Your task to perform on an android device: Open Chrome and go to settings Image 0: 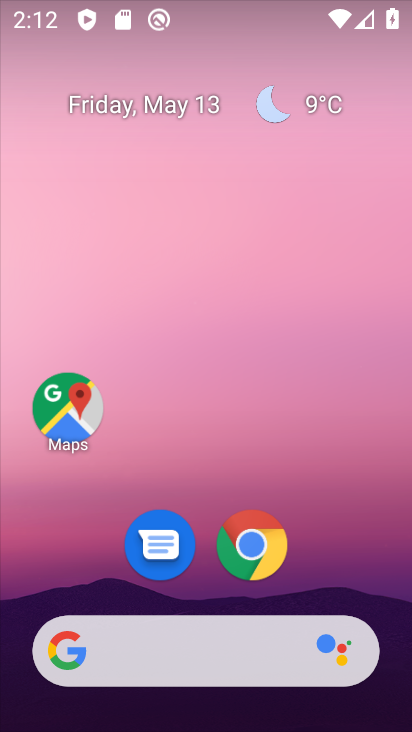
Step 0: click (265, 546)
Your task to perform on an android device: Open Chrome and go to settings Image 1: 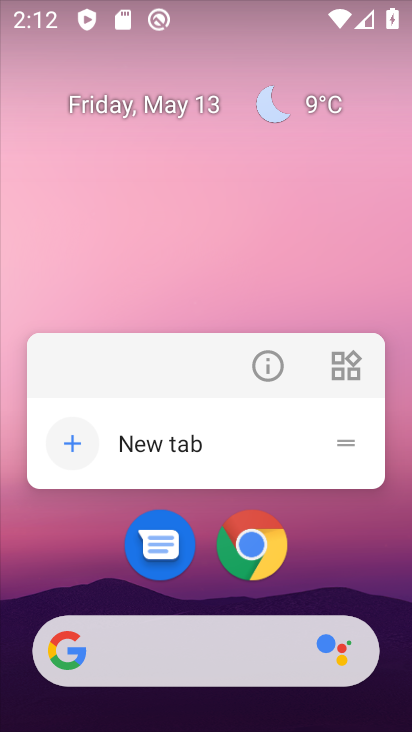
Step 1: click (254, 528)
Your task to perform on an android device: Open Chrome and go to settings Image 2: 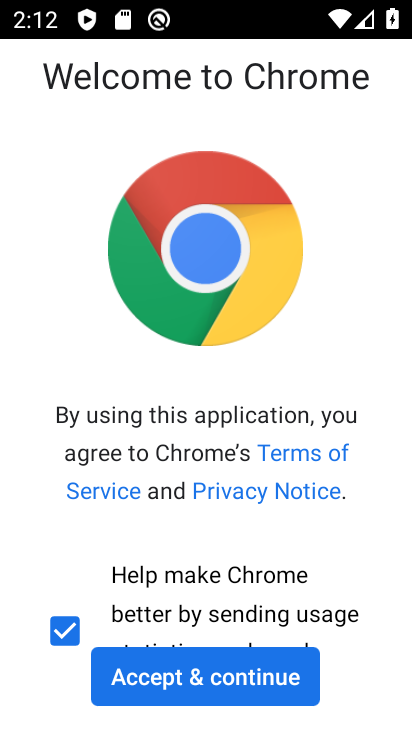
Step 2: click (197, 674)
Your task to perform on an android device: Open Chrome and go to settings Image 3: 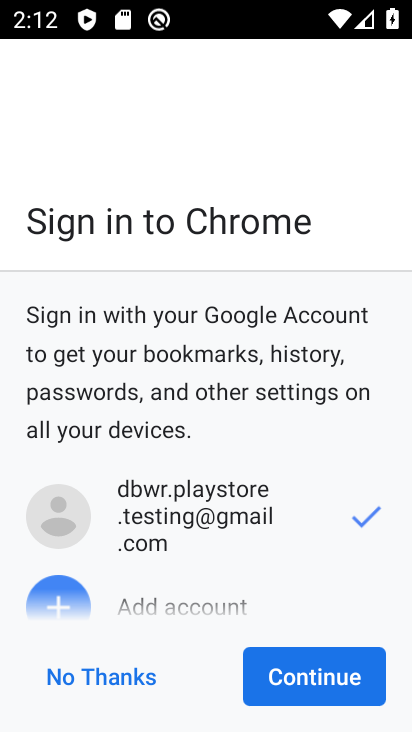
Step 3: click (323, 675)
Your task to perform on an android device: Open Chrome and go to settings Image 4: 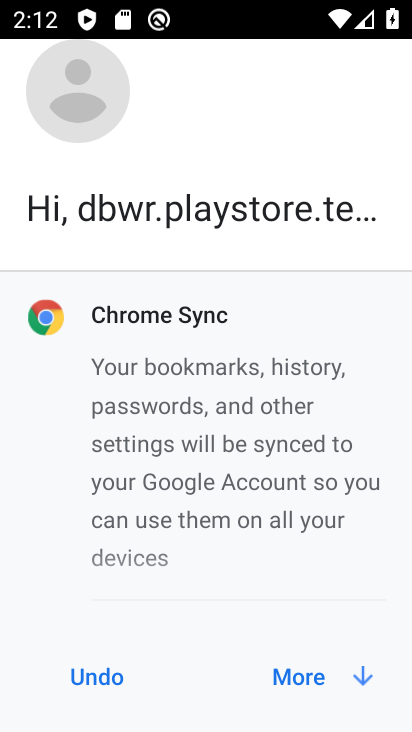
Step 4: click (301, 679)
Your task to perform on an android device: Open Chrome and go to settings Image 5: 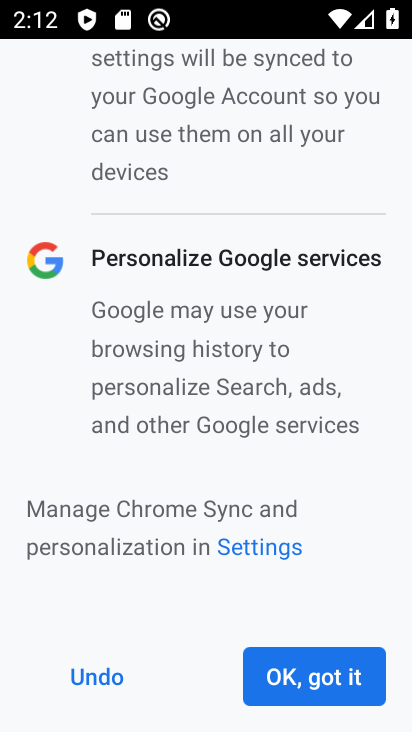
Step 5: click (304, 678)
Your task to perform on an android device: Open Chrome and go to settings Image 6: 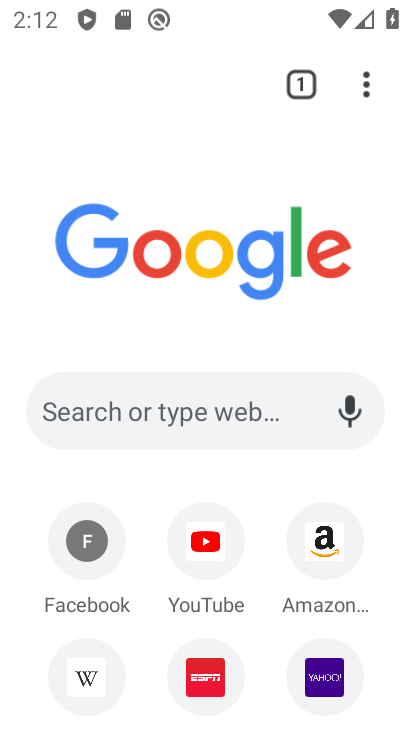
Step 6: task complete